Your task to perform on an android device: Open Amazon Image 0: 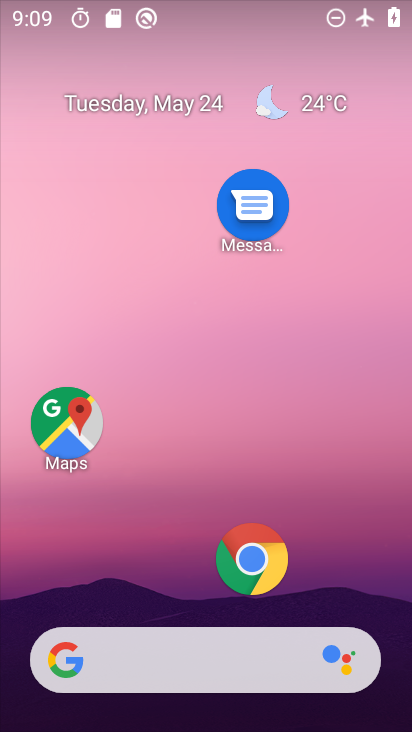
Step 0: click (238, 555)
Your task to perform on an android device: Open Amazon Image 1: 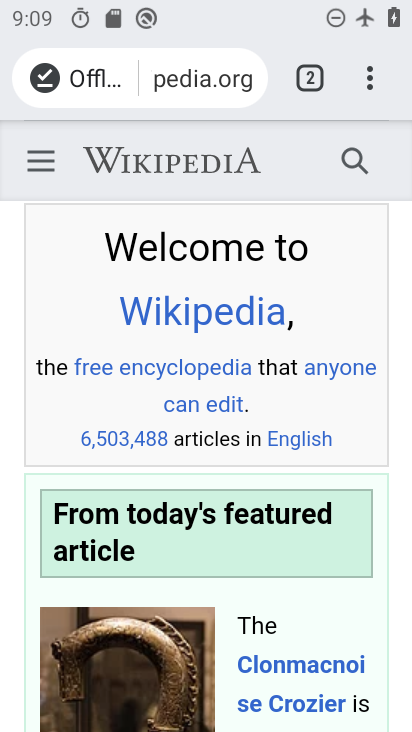
Step 1: click (306, 80)
Your task to perform on an android device: Open Amazon Image 2: 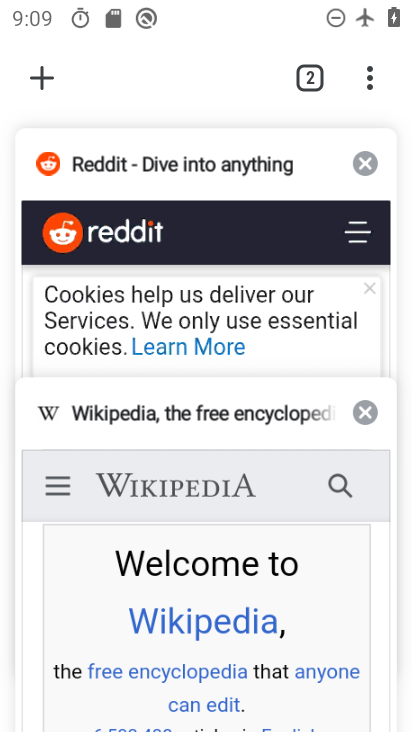
Step 2: click (41, 70)
Your task to perform on an android device: Open Amazon Image 3: 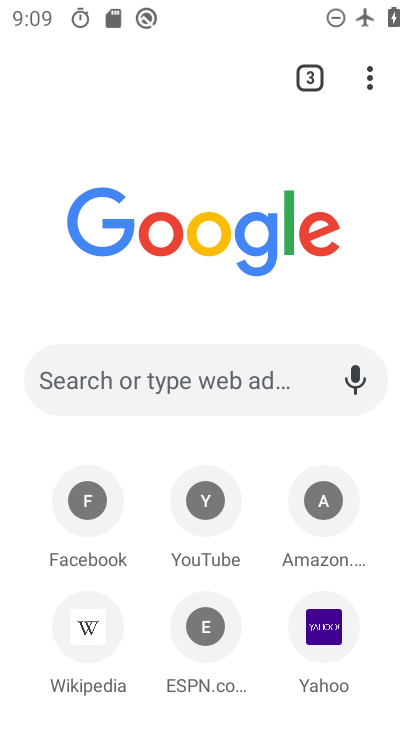
Step 3: click (317, 511)
Your task to perform on an android device: Open Amazon Image 4: 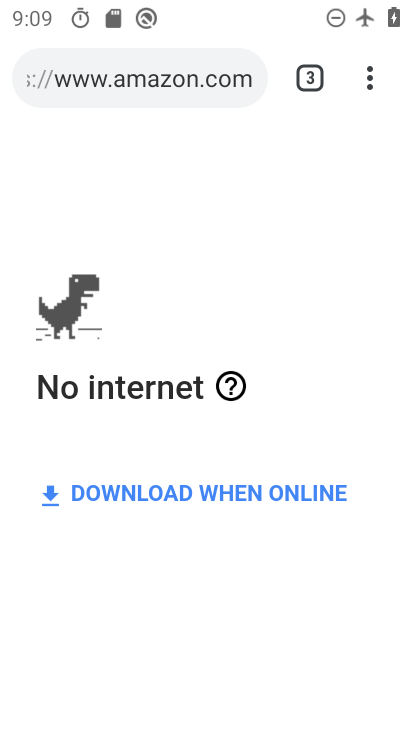
Step 4: task complete